Your task to perform on an android device: turn off airplane mode Image 0: 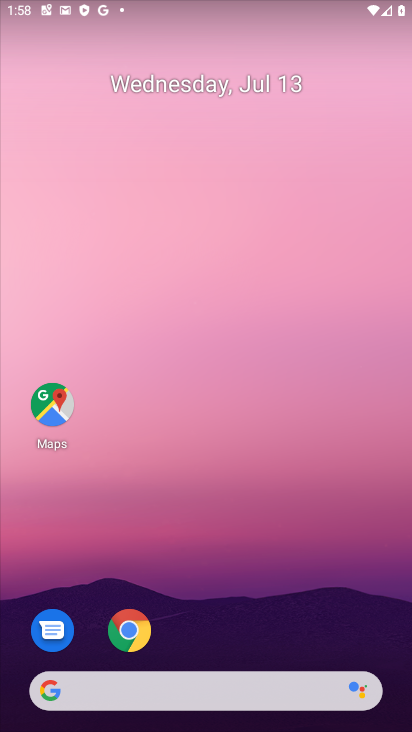
Step 0: drag from (257, 595) to (299, 138)
Your task to perform on an android device: turn off airplane mode Image 1: 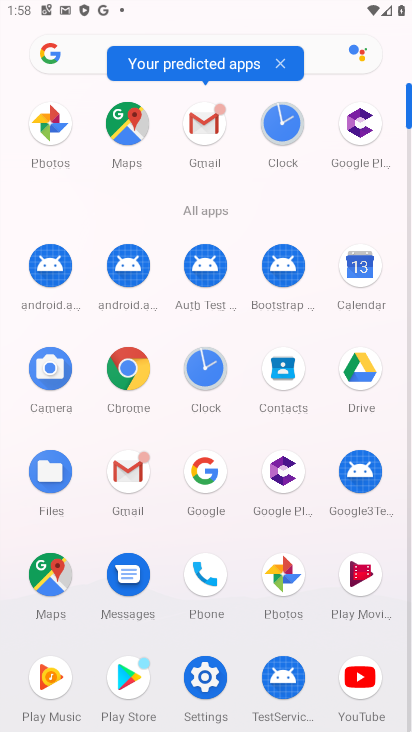
Step 1: click (209, 674)
Your task to perform on an android device: turn off airplane mode Image 2: 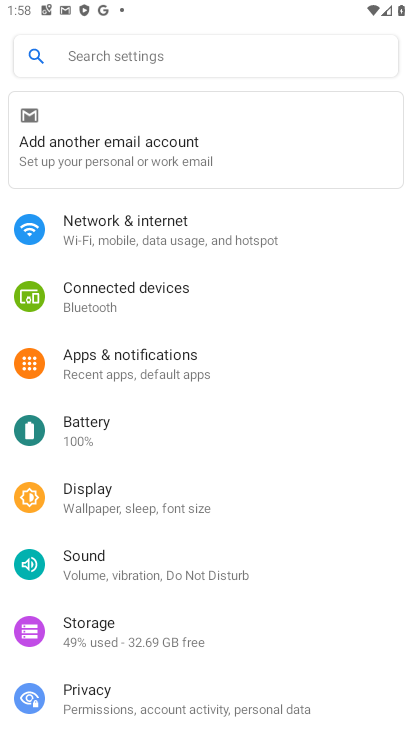
Step 2: click (161, 233)
Your task to perform on an android device: turn off airplane mode Image 3: 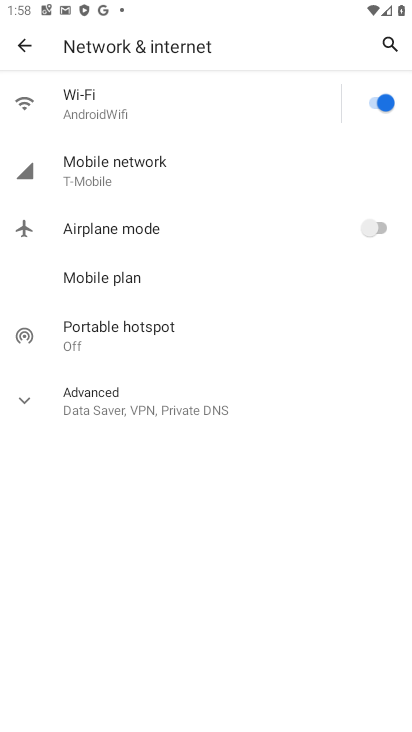
Step 3: task complete